Your task to perform on an android device: see sites visited before in the chrome app Image 0: 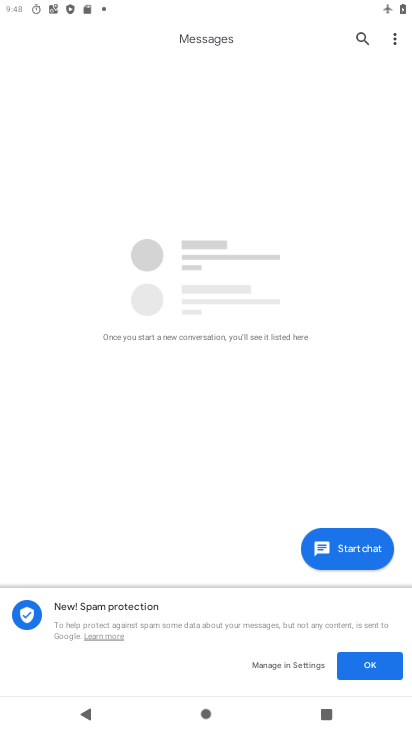
Step 0: press home button
Your task to perform on an android device: see sites visited before in the chrome app Image 1: 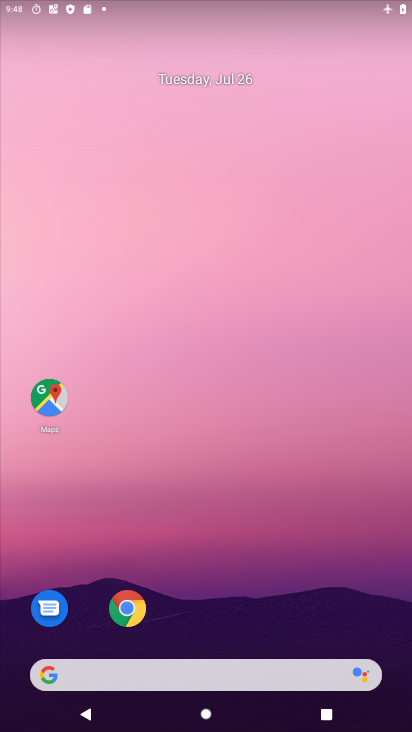
Step 1: click (139, 605)
Your task to perform on an android device: see sites visited before in the chrome app Image 2: 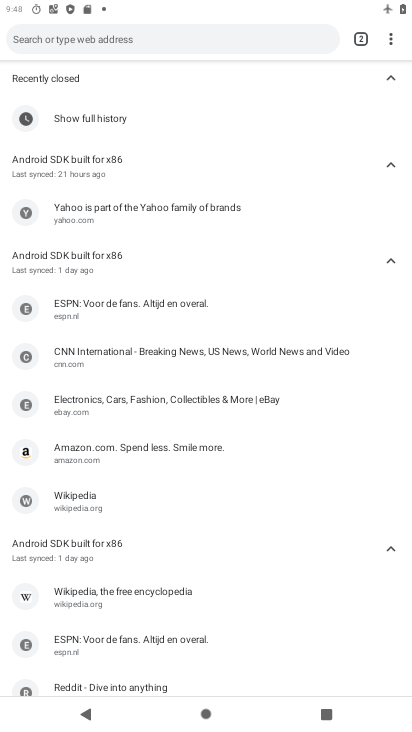
Step 2: task complete